Your task to perform on an android device: Play the last video I watched on Youtube Image 0: 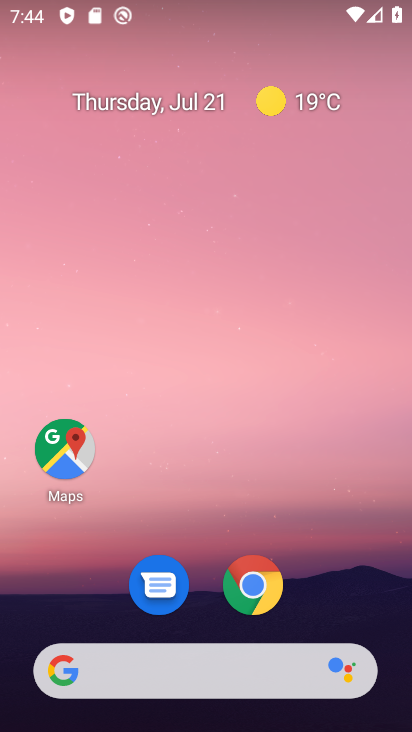
Step 0: drag from (310, 607) to (303, 46)
Your task to perform on an android device: Play the last video I watched on Youtube Image 1: 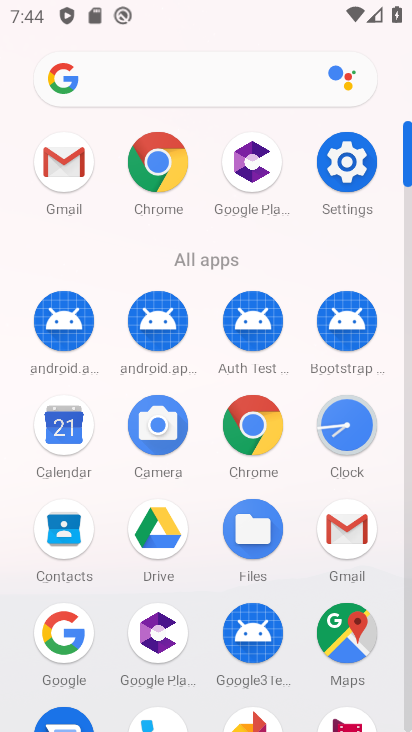
Step 1: drag from (304, 542) to (304, 221)
Your task to perform on an android device: Play the last video I watched on Youtube Image 2: 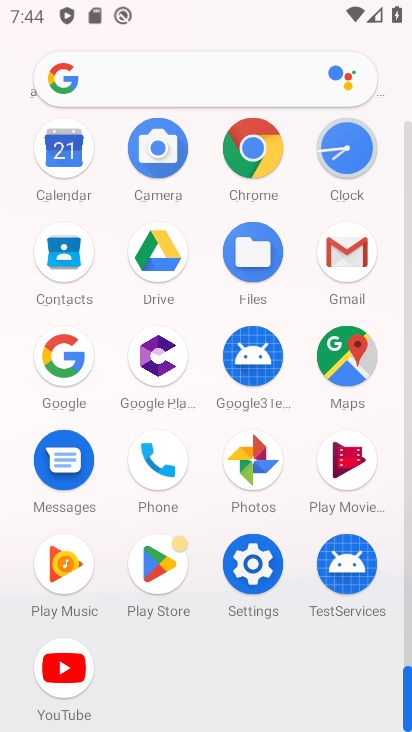
Step 2: click (67, 660)
Your task to perform on an android device: Play the last video I watched on Youtube Image 3: 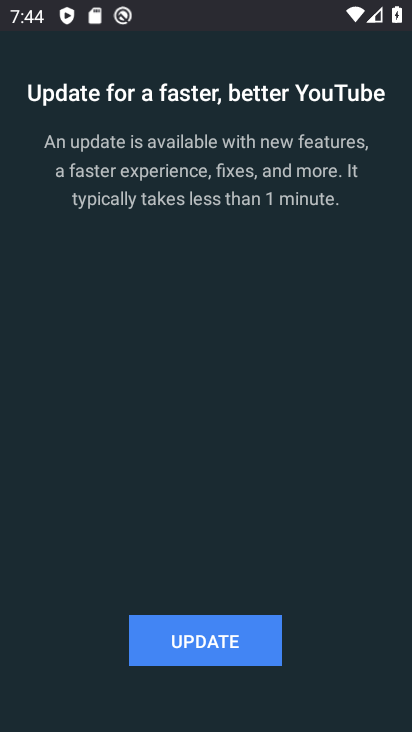
Step 3: click (162, 646)
Your task to perform on an android device: Play the last video I watched on Youtube Image 4: 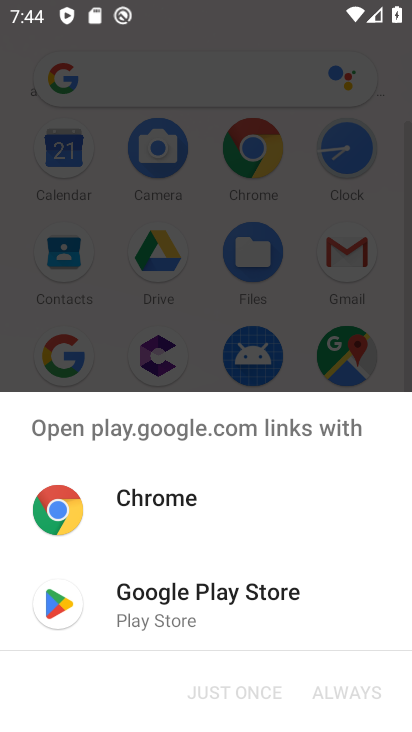
Step 4: click (172, 598)
Your task to perform on an android device: Play the last video I watched on Youtube Image 5: 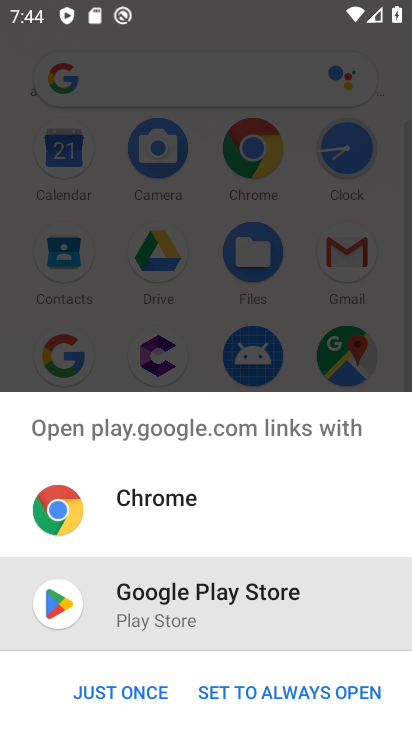
Step 5: click (141, 689)
Your task to perform on an android device: Play the last video I watched on Youtube Image 6: 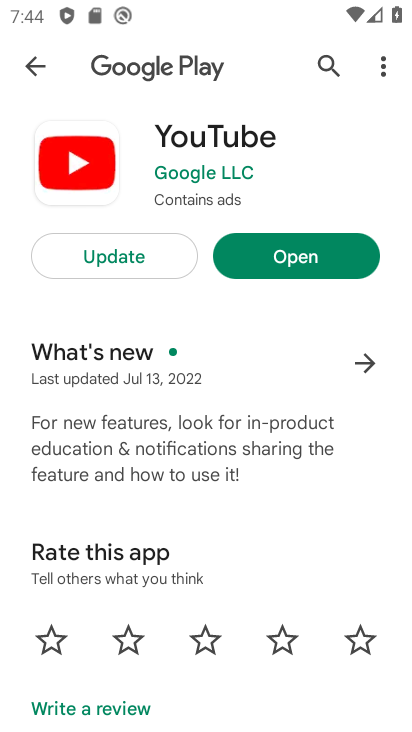
Step 6: click (149, 253)
Your task to perform on an android device: Play the last video I watched on Youtube Image 7: 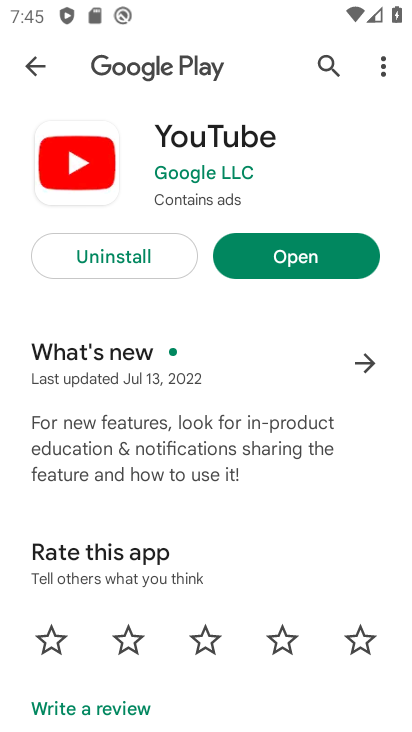
Step 7: click (342, 257)
Your task to perform on an android device: Play the last video I watched on Youtube Image 8: 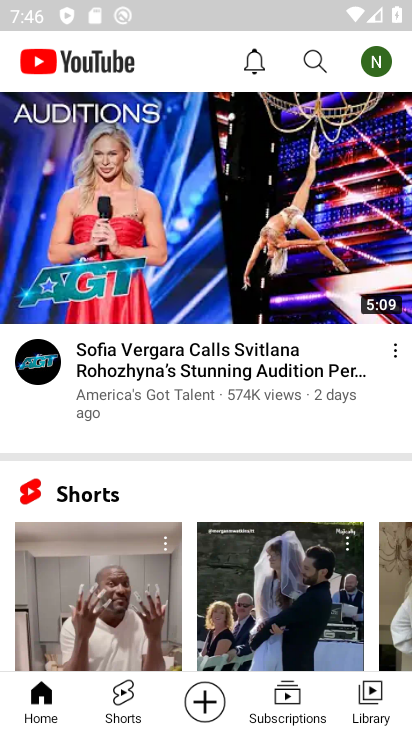
Step 8: click (367, 692)
Your task to perform on an android device: Play the last video I watched on Youtube Image 9: 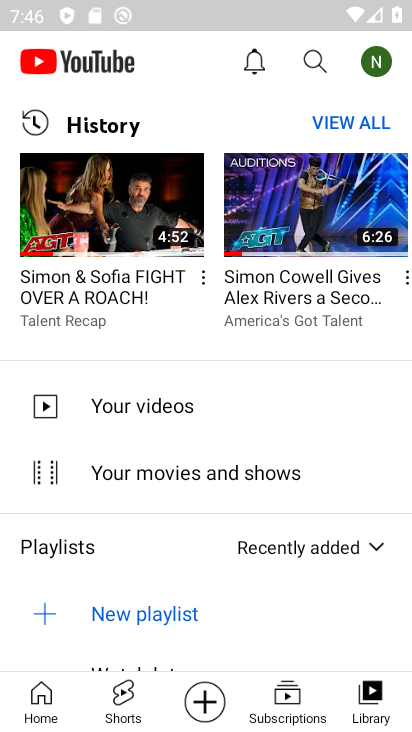
Step 9: click (128, 198)
Your task to perform on an android device: Play the last video I watched on Youtube Image 10: 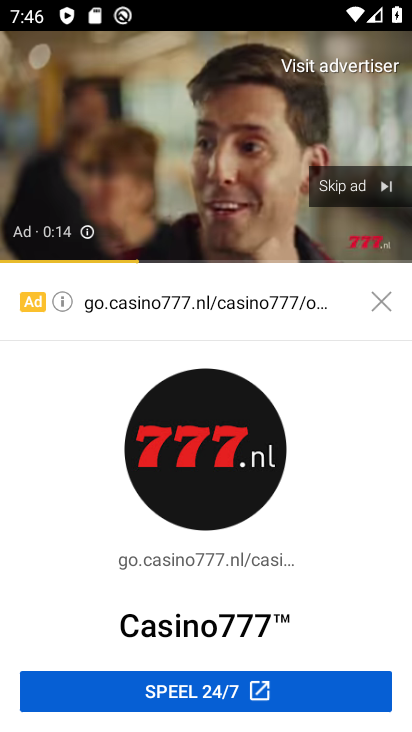
Step 10: click (350, 188)
Your task to perform on an android device: Play the last video I watched on Youtube Image 11: 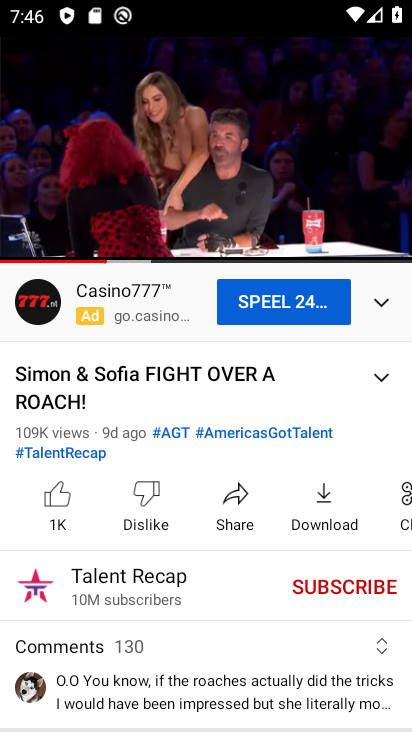
Step 11: task complete